Your task to perform on an android device: Open calendar and show me the fourth week of next month Image 0: 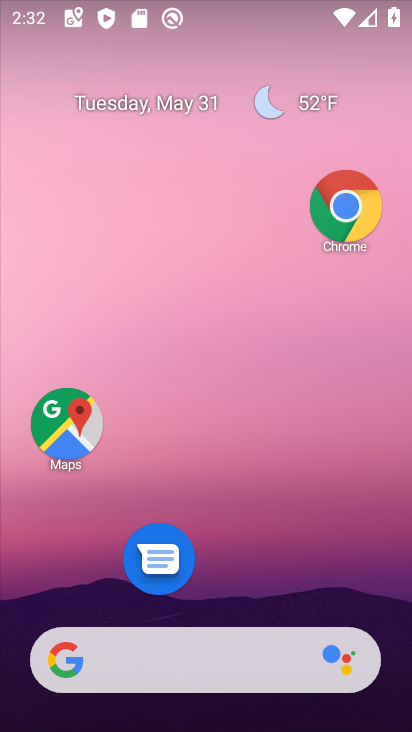
Step 0: drag from (276, 588) to (145, 195)
Your task to perform on an android device: Open calendar and show me the fourth week of next month Image 1: 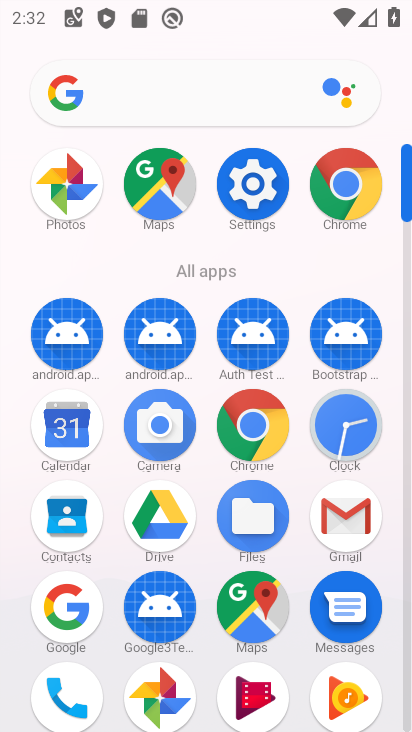
Step 1: click (80, 443)
Your task to perform on an android device: Open calendar and show me the fourth week of next month Image 2: 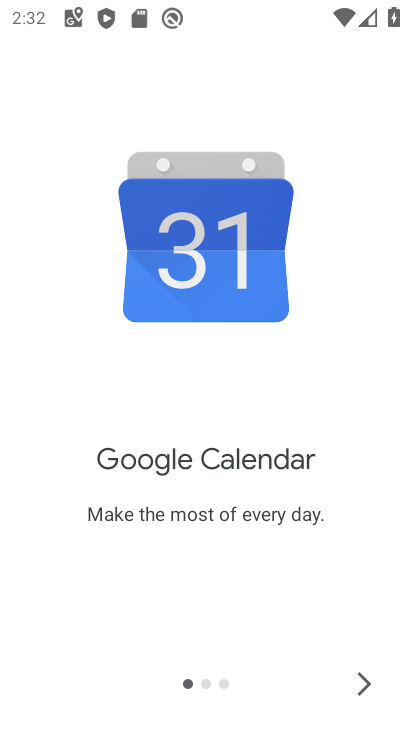
Step 2: click (349, 692)
Your task to perform on an android device: Open calendar and show me the fourth week of next month Image 3: 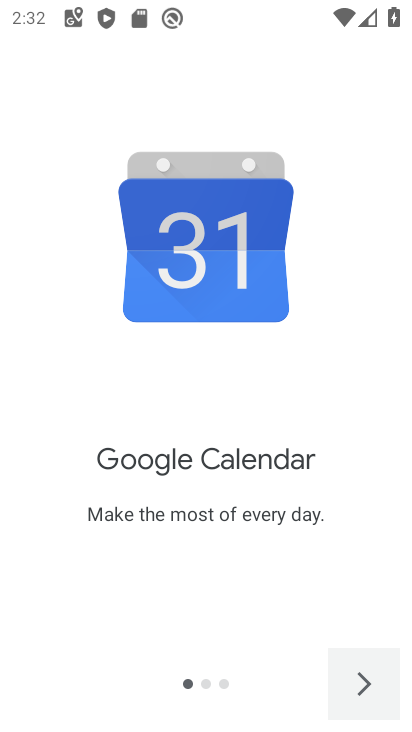
Step 3: click (349, 692)
Your task to perform on an android device: Open calendar and show me the fourth week of next month Image 4: 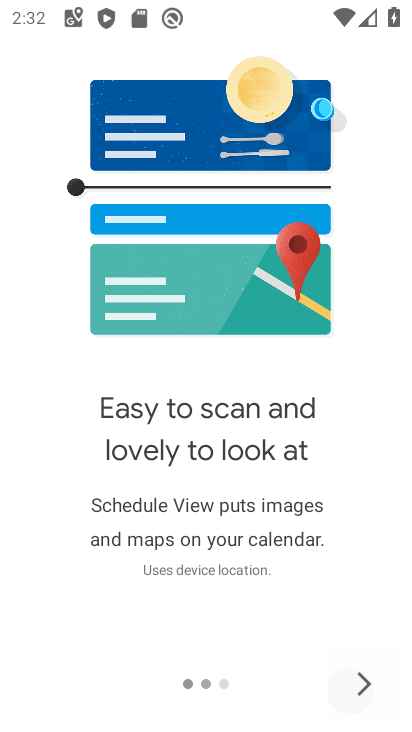
Step 4: click (349, 692)
Your task to perform on an android device: Open calendar and show me the fourth week of next month Image 5: 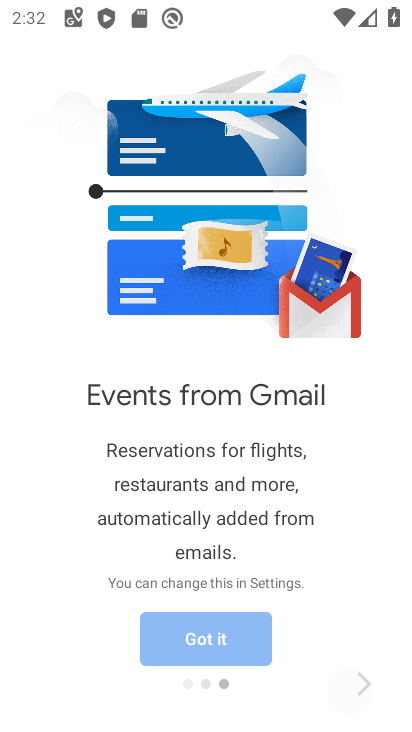
Step 5: click (349, 692)
Your task to perform on an android device: Open calendar and show me the fourth week of next month Image 6: 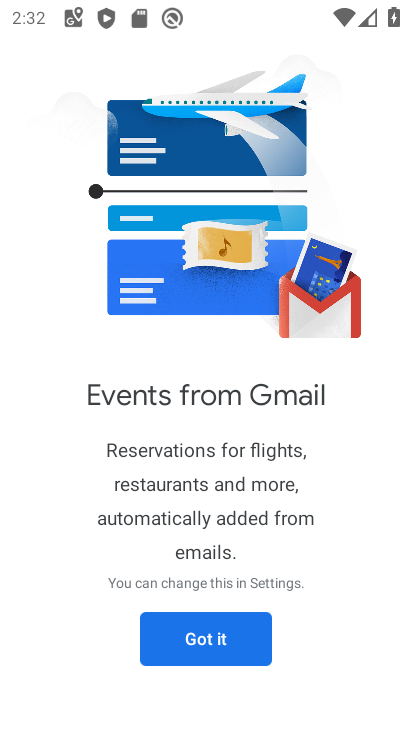
Step 6: click (349, 692)
Your task to perform on an android device: Open calendar and show me the fourth week of next month Image 7: 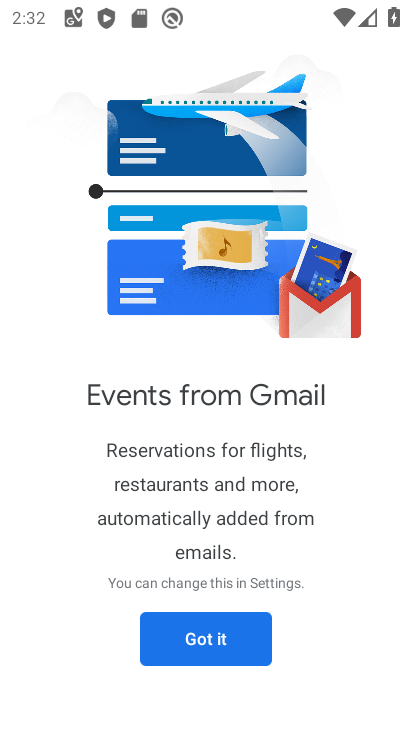
Step 7: click (195, 639)
Your task to perform on an android device: Open calendar and show me the fourth week of next month Image 8: 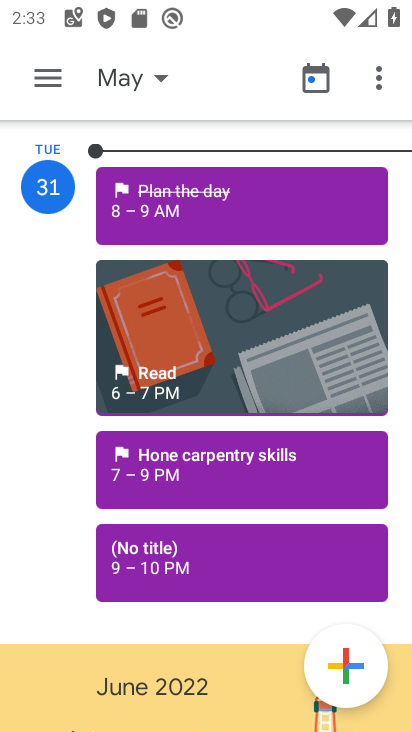
Step 8: click (164, 84)
Your task to perform on an android device: Open calendar and show me the fourth week of next month Image 9: 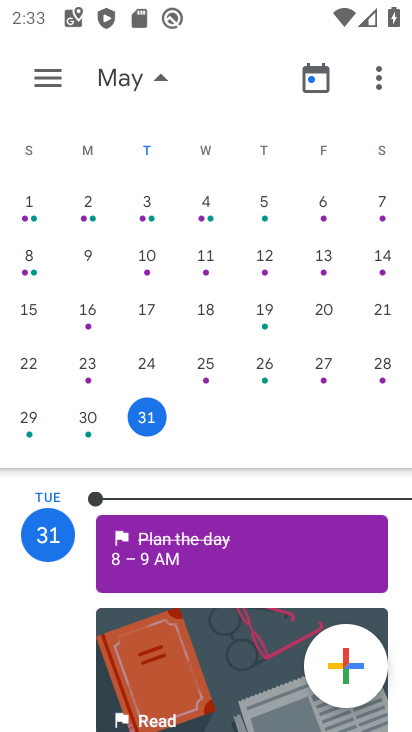
Step 9: drag from (317, 320) to (3, 414)
Your task to perform on an android device: Open calendar and show me the fourth week of next month Image 10: 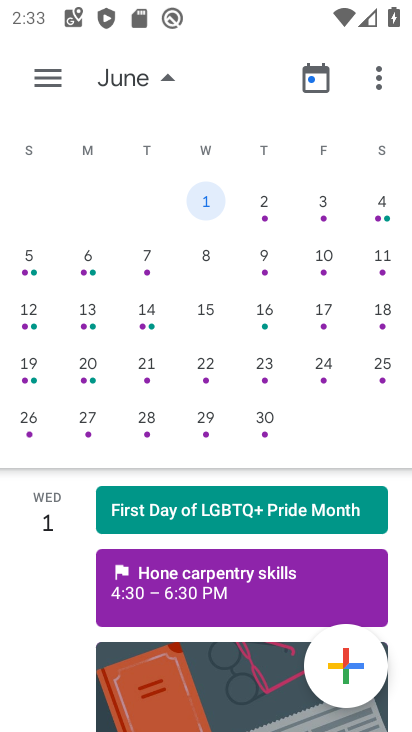
Step 10: click (31, 374)
Your task to perform on an android device: Open calendar and show me the fourth week of next month Image 11: 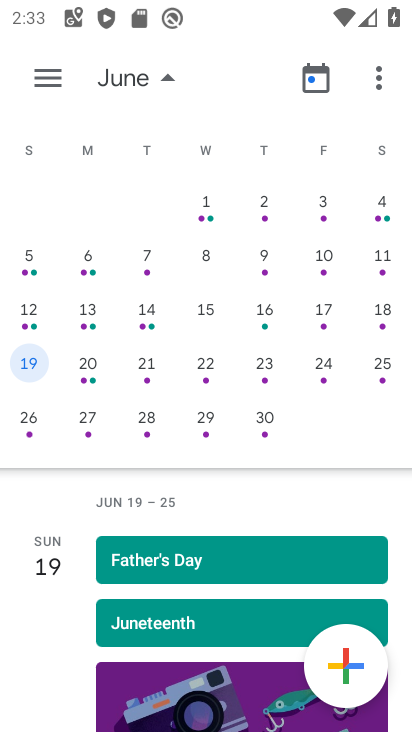
Step 11: click (152, 87)
Your task to perform on an android device: Open calendar and show me the fourth week of next month Image 12: 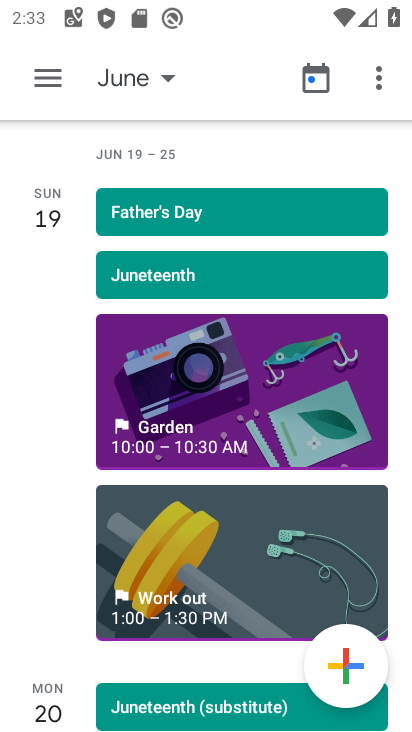
Step 12: task complete